Your task to perform on an android device: Open network settings Image 0: 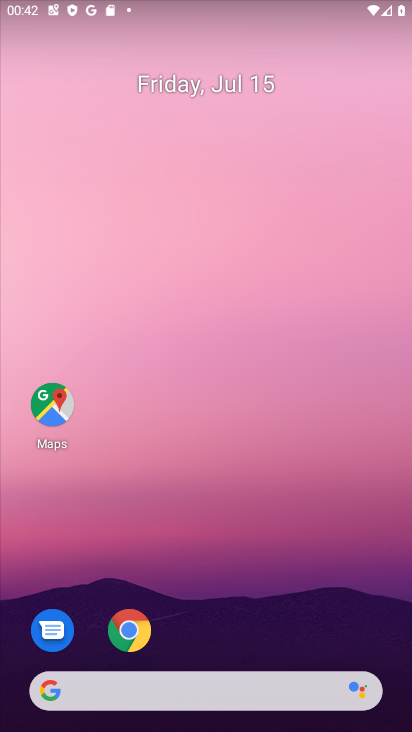
Step 0: drag from (259, 650) to (225, 5)
Your task to perform on an android device: Open network settings Image 1: 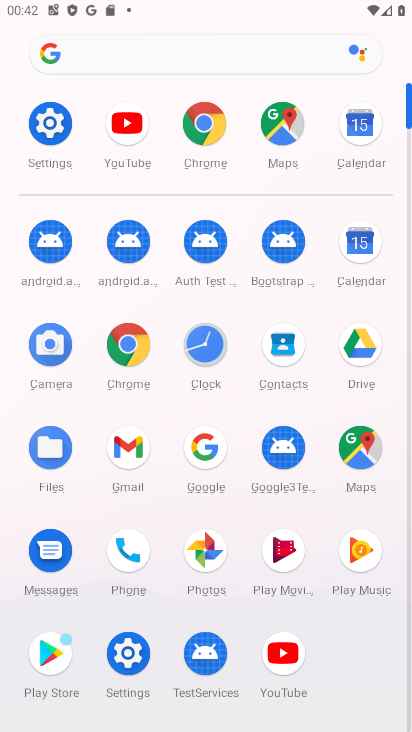
Step 1: click (43, 111)
Your task to perform on an android device: Open network settings Image 2: 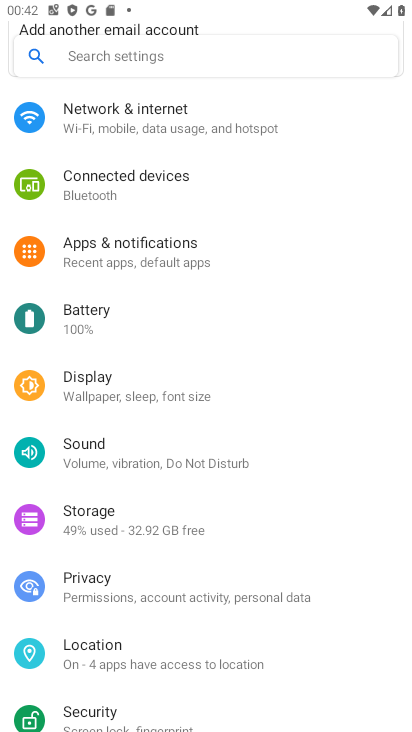
Step 2: click (159, 136)
Your task to perform on an android device: Open network settings Image 3: 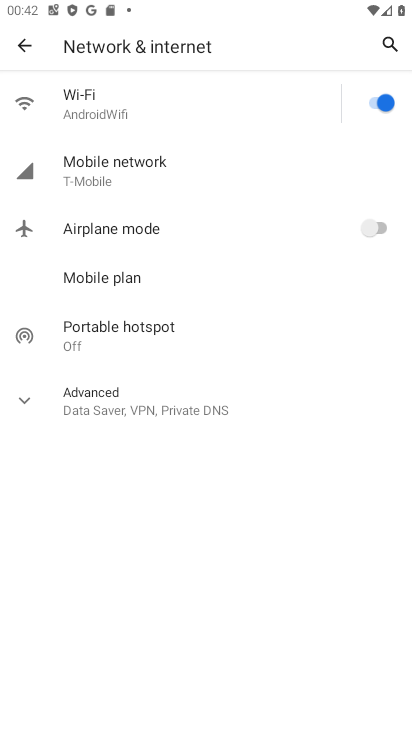
Step 3: task complete